Your task to perform on an android device: Show the shopping cart on costco.com. Add apple airpods pro to the cart on costco.com Image 0: 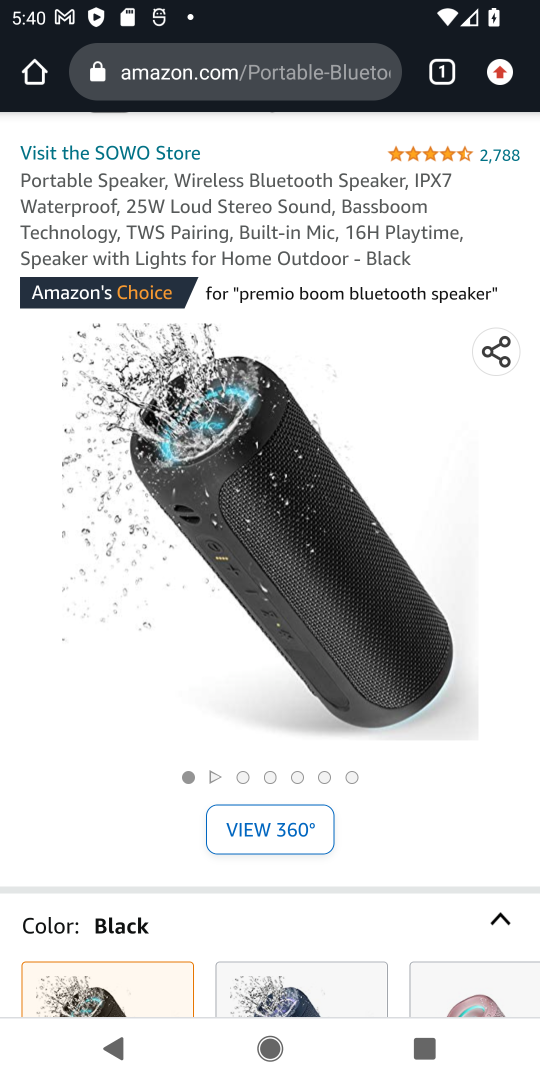
Step 0: press home button
Your task to perform on an android device: Show the shopping cart on costco.com. Add apple airpods pro to the cart on costco.com Image 1: 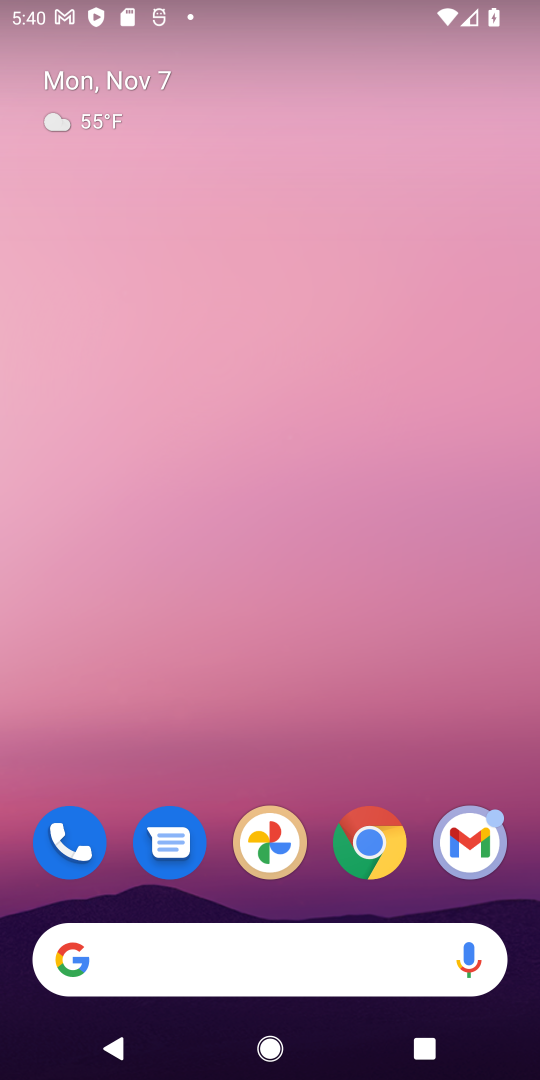
Step 1: click (378, 847)
Your task to perform on an android device: Show the shopping cart on costco.com. Add apple airpods pro to the cart on costco.com Image 2: 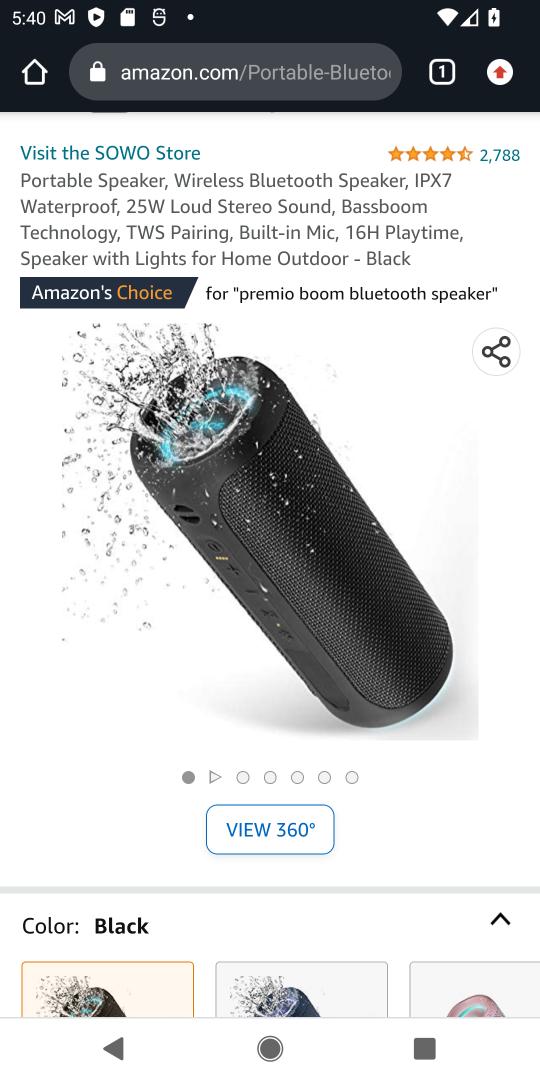
Step 2: click (288, 79)
Your task to perform on an android device: Show the shopping cart on costco.com. Add apple airpods pro to the cart on costco.com Image 3: 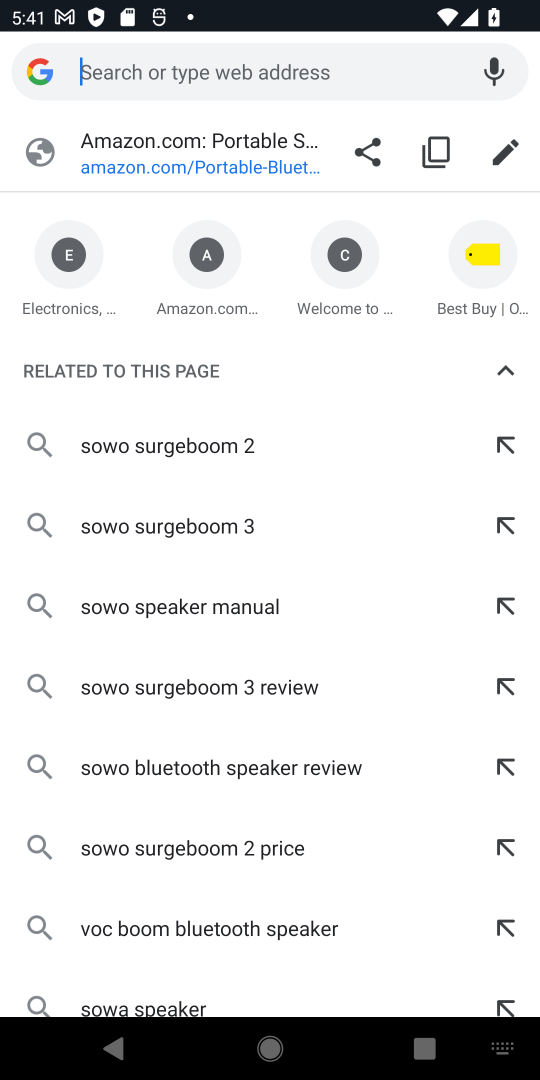
Step 3: type "costco.com"
Your task to perform on an android device: Show the shopping cart on costco.com. Add apple airpods pro to the cart on costco.com Image 4: 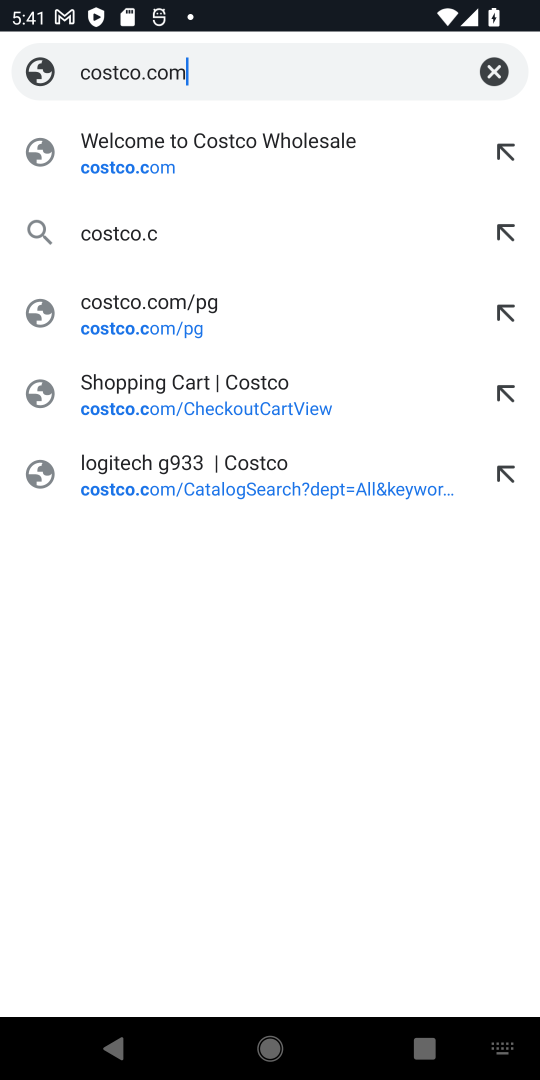
Step 4: press enter
Your task to perform on an android device: Show the shopping cart on costco.com. Add apple airpods pro to the cart on costco.com Image 5: 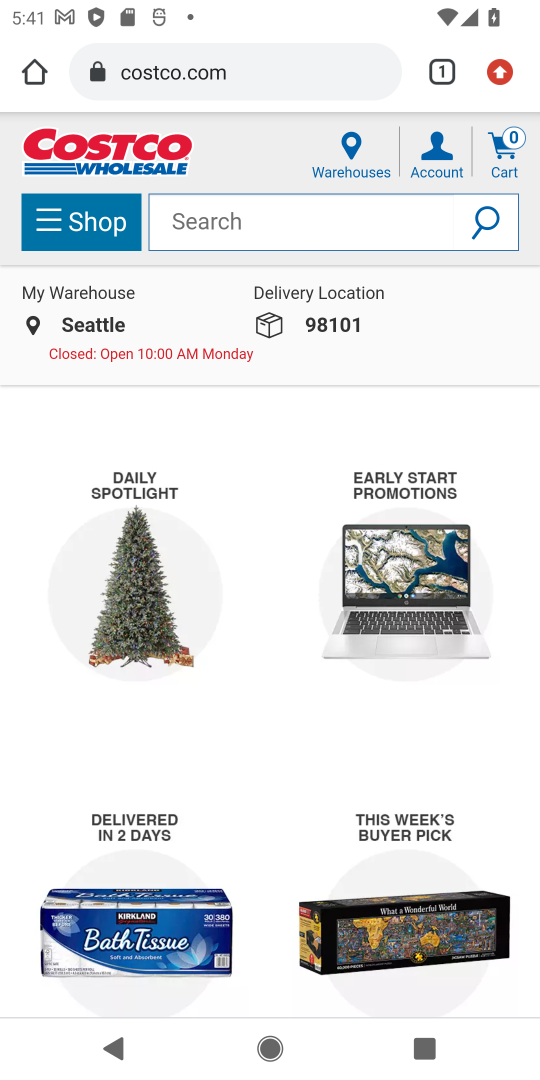
Step 5: click (307, 220)
Your task to perform on an android device: Show the shopping cart on costco.com. Add apple airpods pro to the cart on costco.com Image 6: 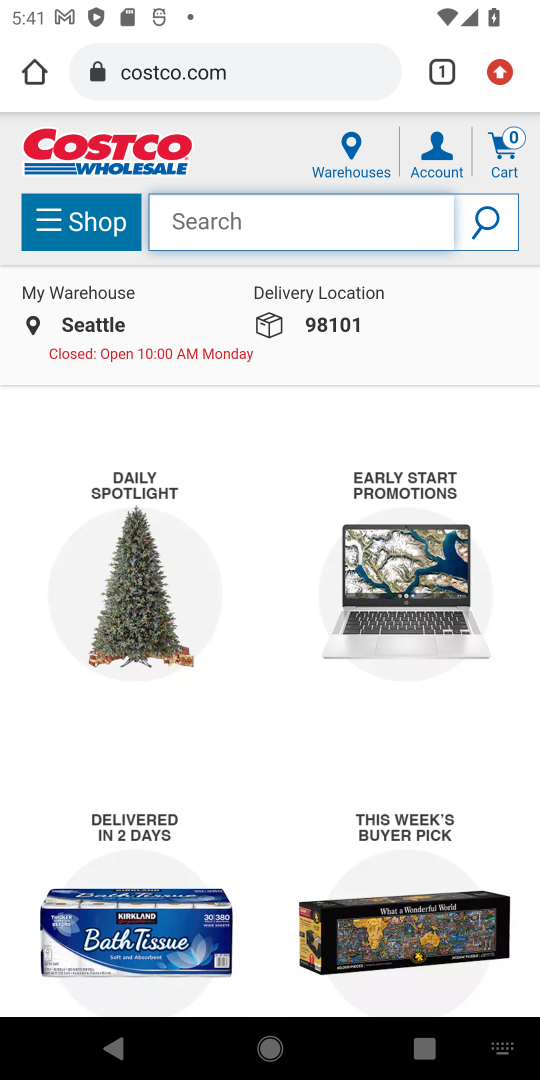
Step 6: type "apple airpods pro"
Your task to perform on an android device: Show the shopping cart on costco.com. Add apple airpods pro to the cart on costco.com Image 7: 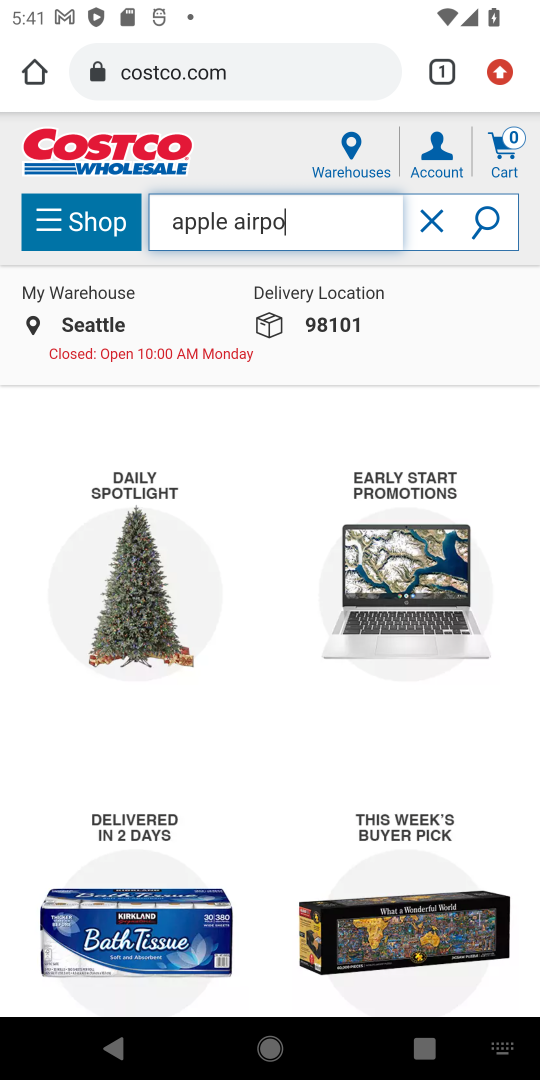
Step 7: press enter
Your task to perform on an android device: Show the shopping cart on costco.com. Add apple airpods pro to the cart on costco.com Image 8: 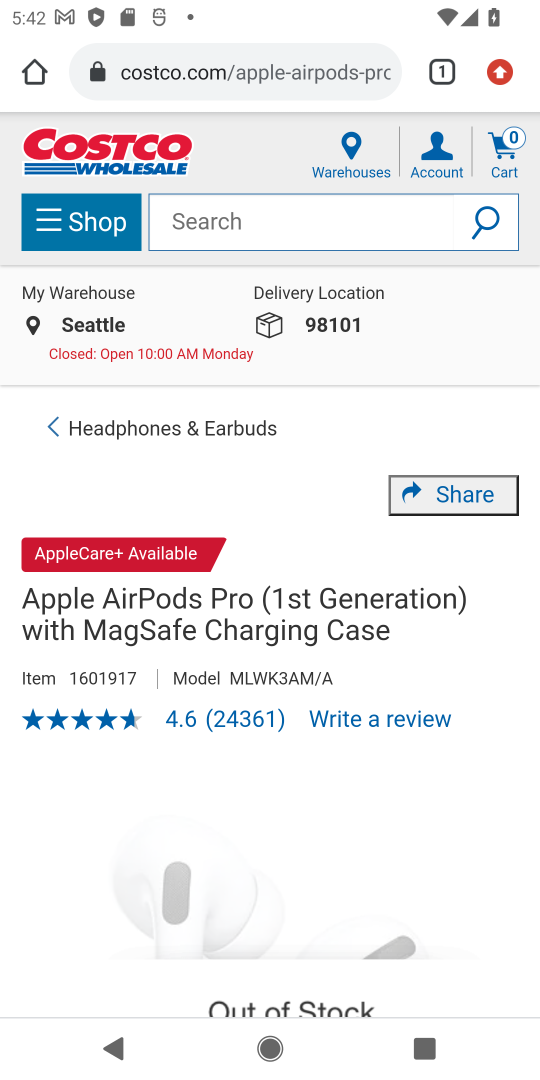
Step 8: task complete